Your task to perform on an android device: search for starred emails in the gmail app Image 0: 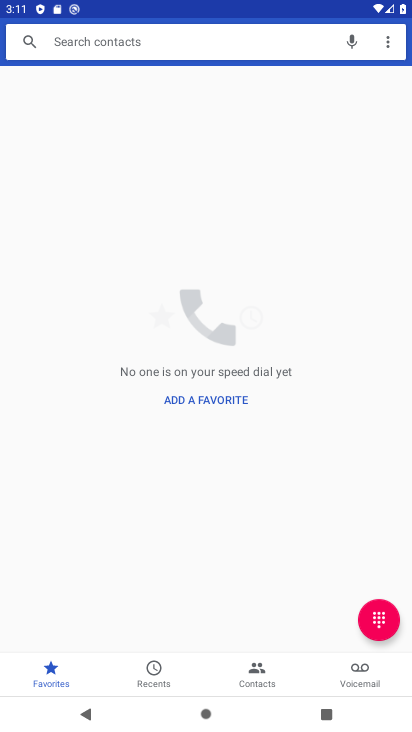
Step 0: press home button
Your task to perform on an android device: search for starred emails in the gmail app Image 1: 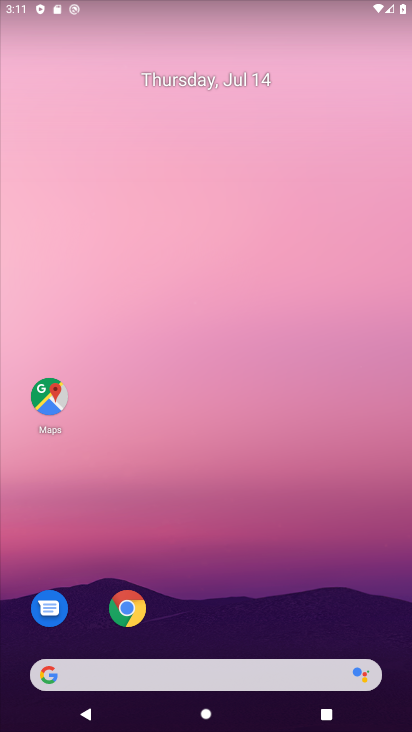
Step 1: drag from (194, 652) to (235, 286)
Your task to perform on an android device: search for starred emails in the gmail app Image 2: 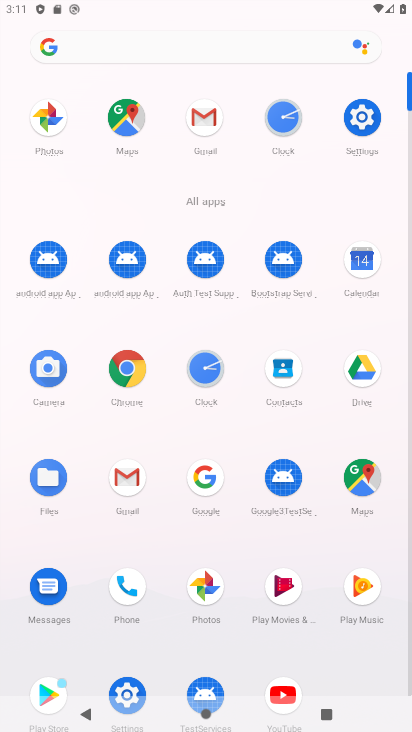
Step 2: click (121, 481)
Your task to perform on an android device: search for starred emails in the gmail app Image 3: 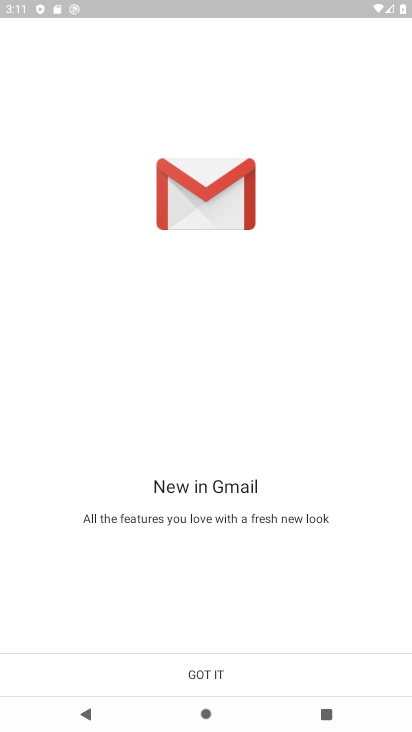
Step 3: click (210, 678)
Your task to perform on an android device: search for starred emails in the gmail app Image 4: 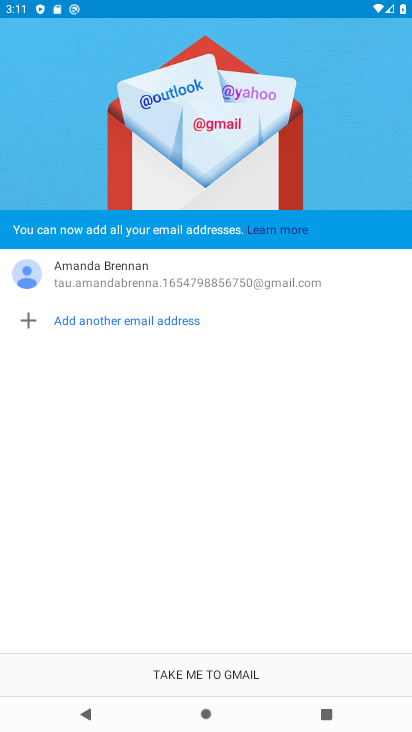
Step 4: click (210, 678)
Your task to perform on an android device: search for starred emails in the gmail app Image 5: 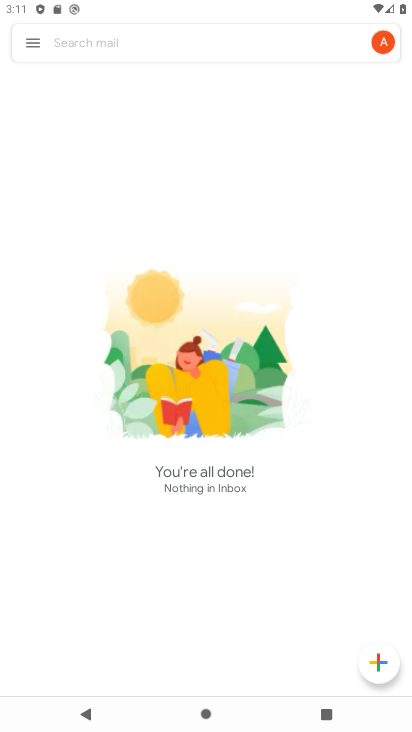
Step 5: click (30, 45)
Your task to perform on an android device: search for starred emails in the gmail app Image 6: 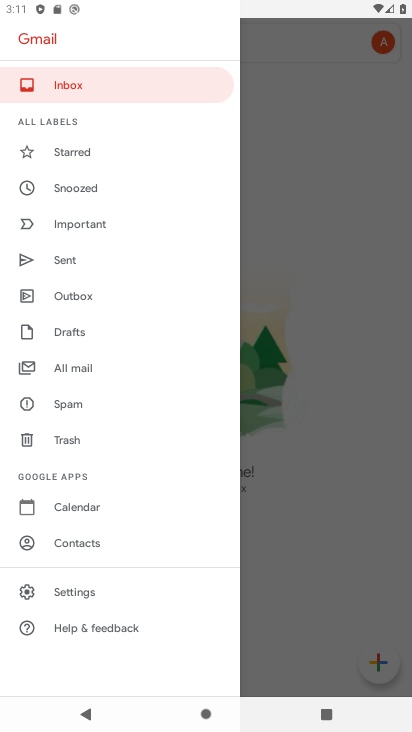
Step 6: click (106, 146)
Your task to perform on an android device: search for starred emails in the gmail app Image 7: 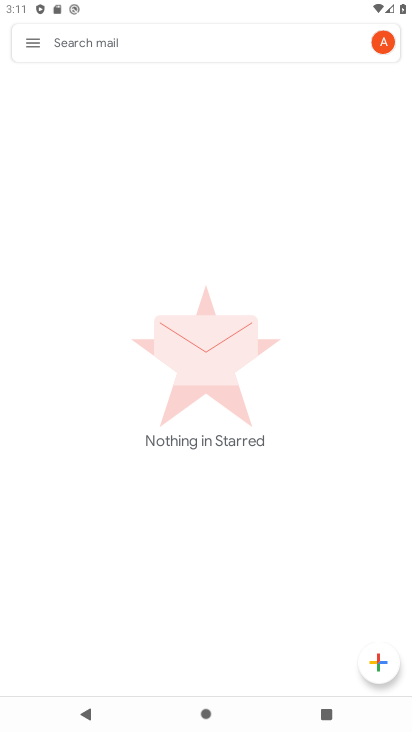
Step 7: task complete